Your task to perform on an android device: clear all cookies in the chrome app Image 0: 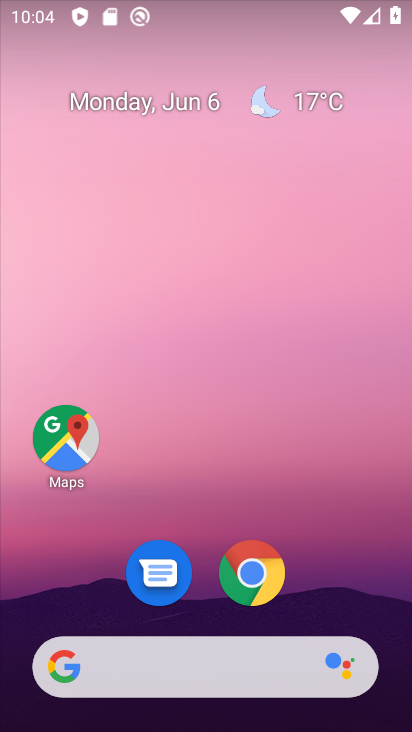
Step 0: click (273, 584)
Your task to perform on an android device: clear all cookies in the chrome app Image 1: 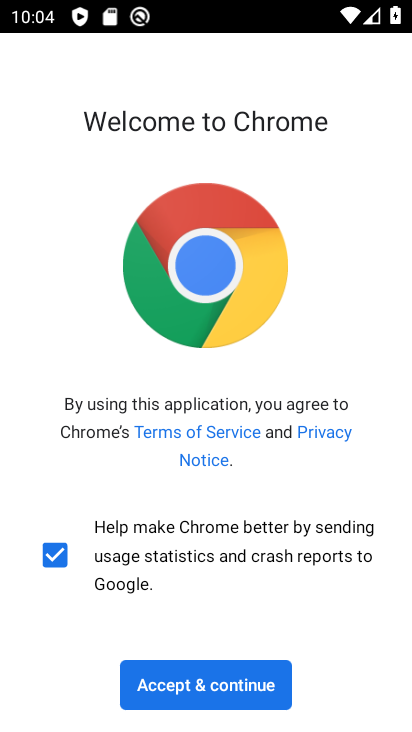
Step 1: click (243, 694)
Your task to perform on an android device: clear all cookies in the chrome app Image 2: 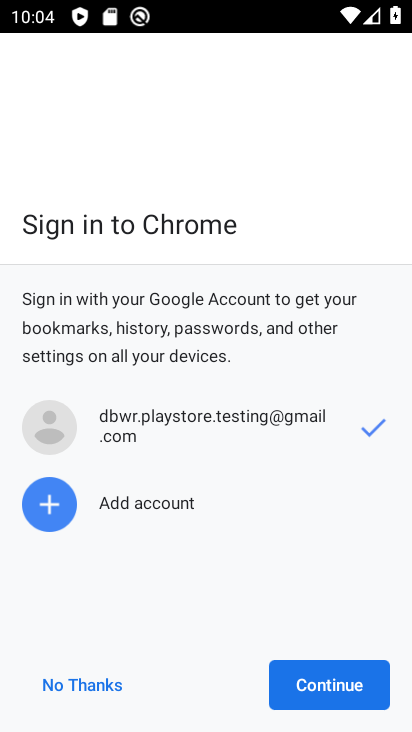
Step 2: click (326, 695)
Your task to perform on an android device: clear all cookies in the chrome app Image 3: 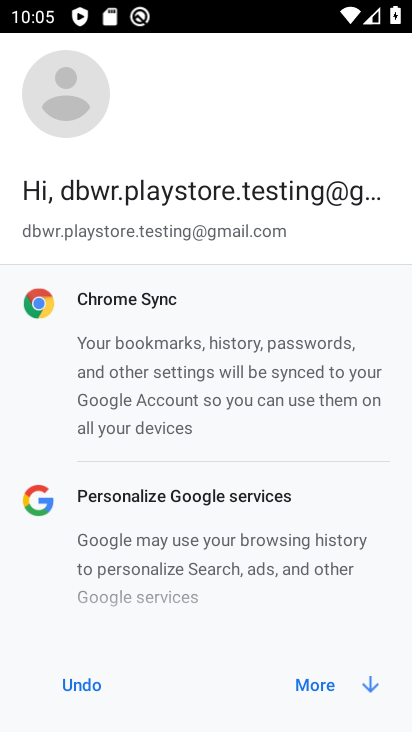
Step 3: click (326, 695)
Your task to perform on an android device: clear all cookies in the chrome app Image 4: 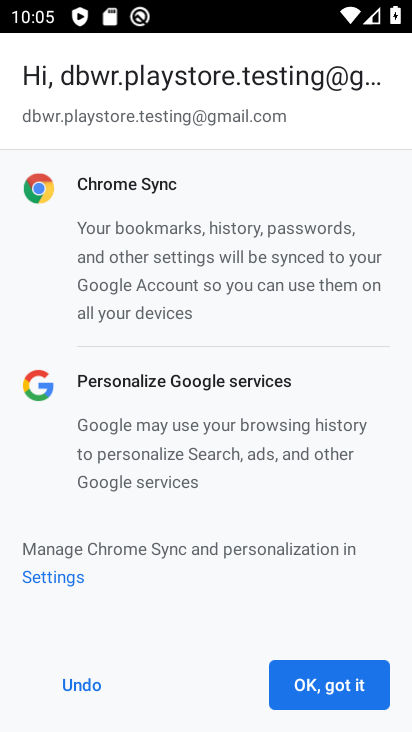
Step 4: click (326, 695)
Your task to perform on an android device: clear all cookies in the chrome app Image 5: 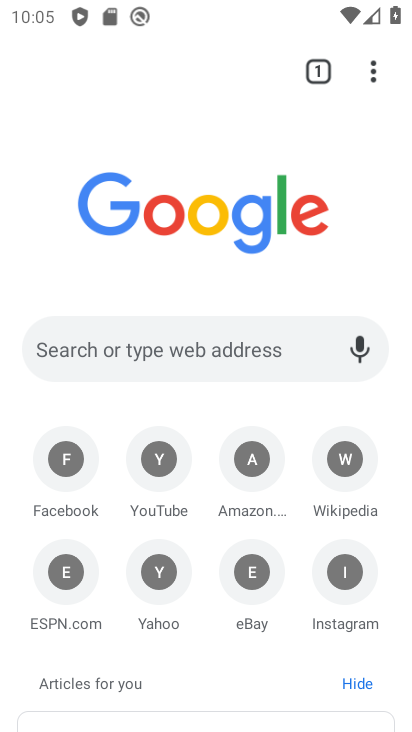
Step 5: click (368, 92)
Your task to perform on an android device: clear all cookies in the chrome app Image 6: 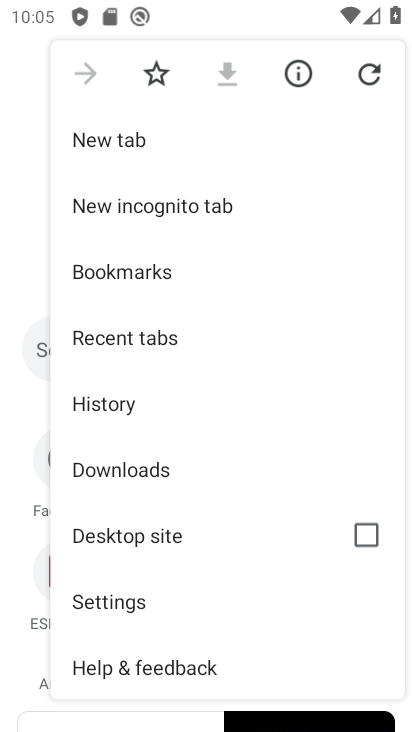
Step 6: click (175, 411)
Your task to perform on an android device: clear all cookies in the chrome app Image 7: 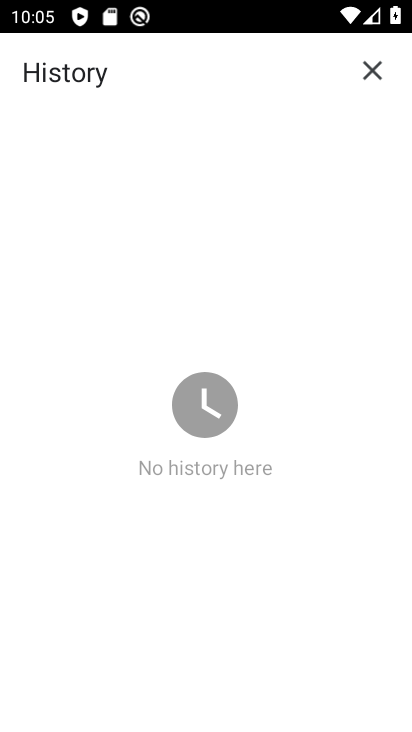
Step 7: task complete